Your task to perform on an android device: open device folders in google photos Image 0: 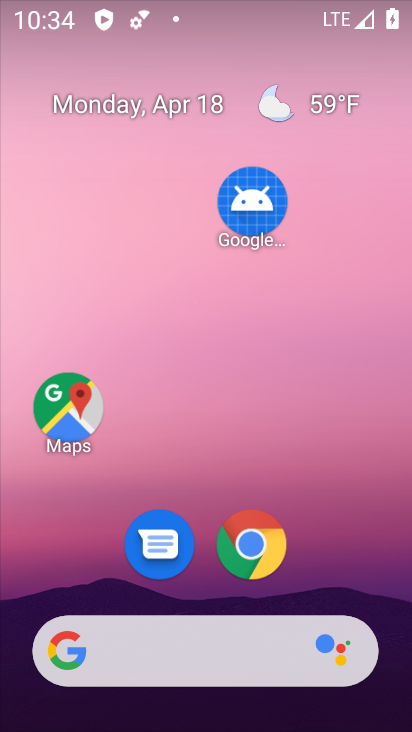
Step 0: drag from (296, 389) to (296, 250)
Your task to perform on an android device: open device folders in google photos Image 1: 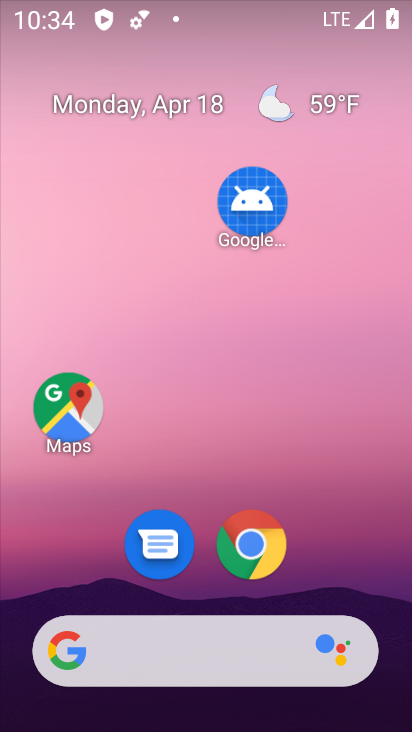
Step 1: drag from (266, 562) to (307, 227)
Your task to perform on an android device: open device folders in google photos Image 2: 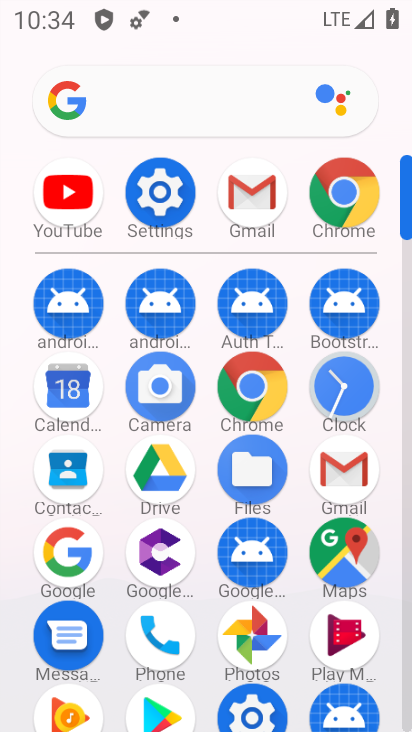
Step 2: click (252, 610)
Your task to perform on an android device: open device folders in google photos Image 3: 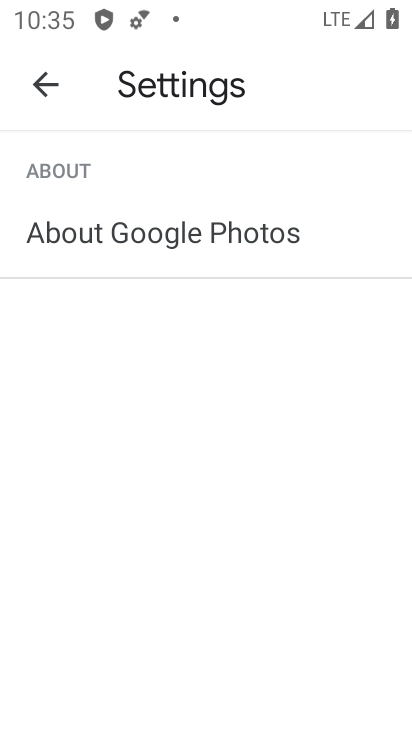
Step 3: click (61, 76)
Your task to perform on an android device: open device folders in google photos Image 4: 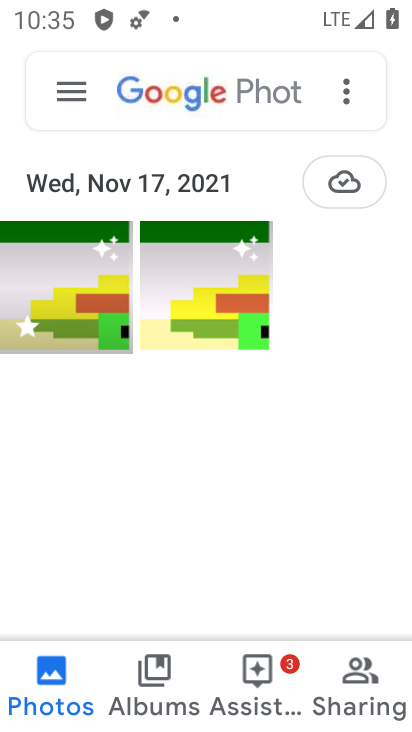
Step 4: click (102, 319)
Your task to perform on an android device: open device folders in google photos Image 5: 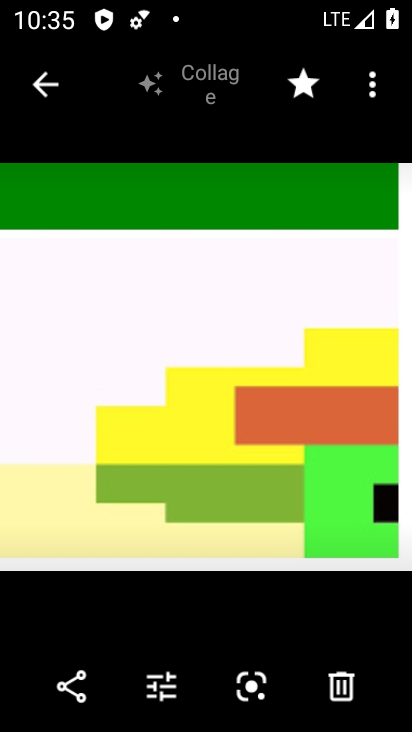
Step 5: task complete